Your task to perform on an android device: uninstall "Google Home" Image 0: 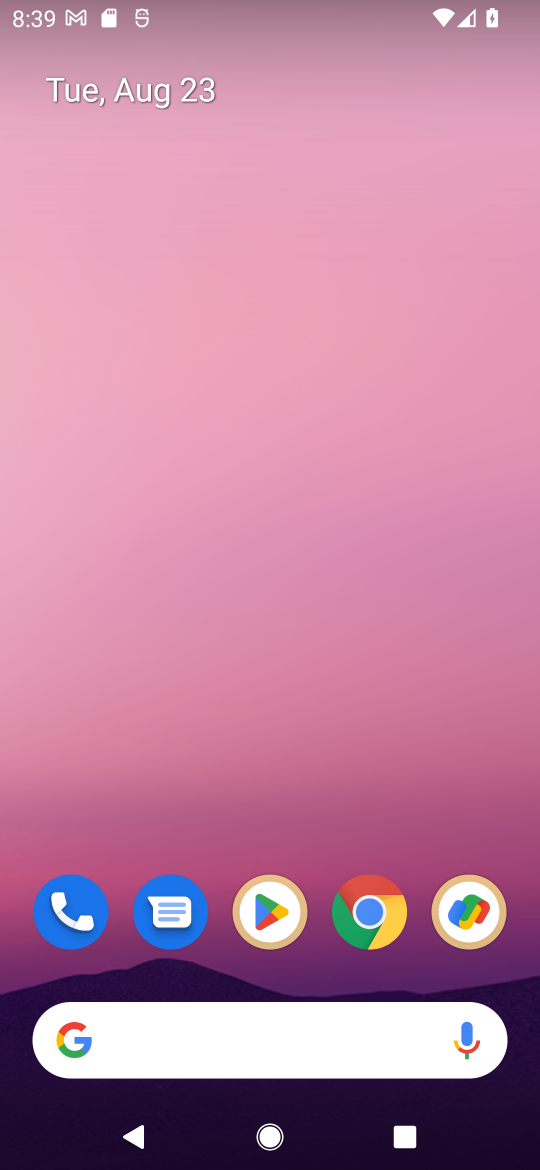
Step 0: drag from (279, 839) to (324, 76)
Your task to perform on an android device: uninstall "Google Home" Image 1: 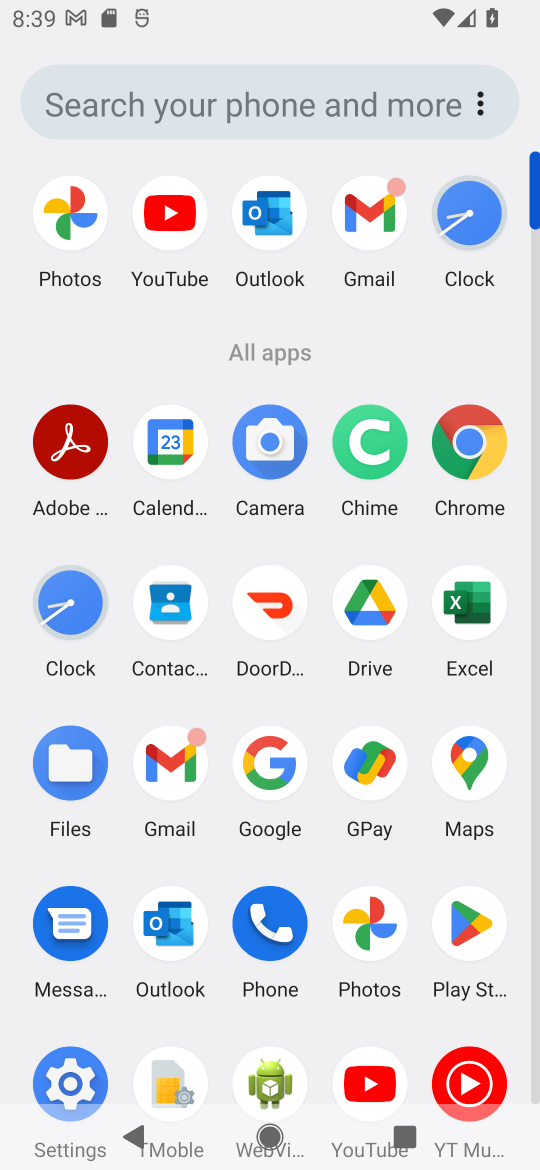
Step 1: click (475, 920)
Your task to perform on an android device: uninstall "Google Home" Image 2: 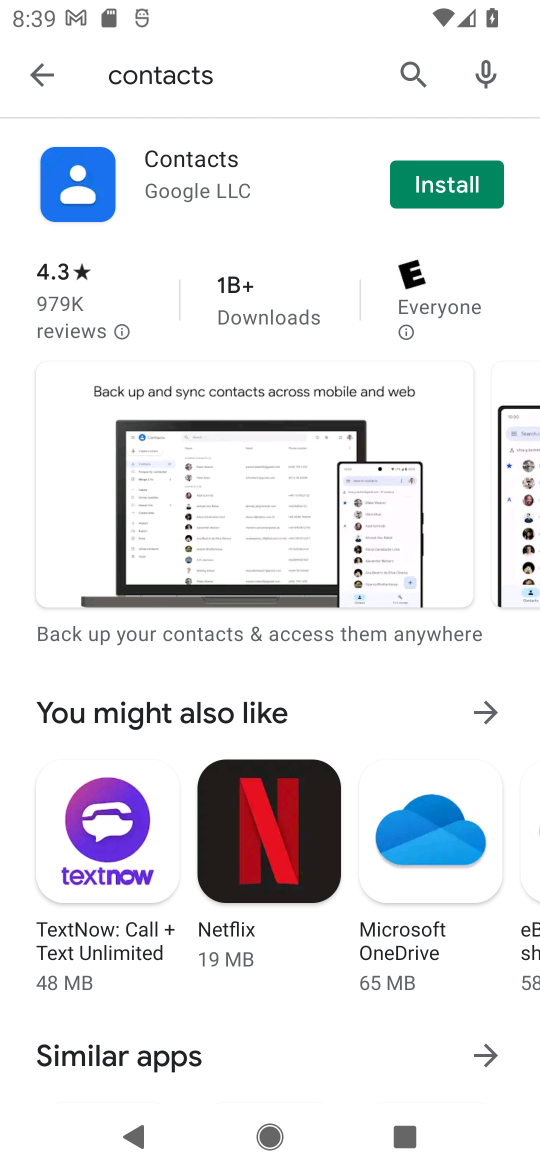
Step 2: press back button
Your task to perform on an android device: uninstall "Google Home" Image 3: 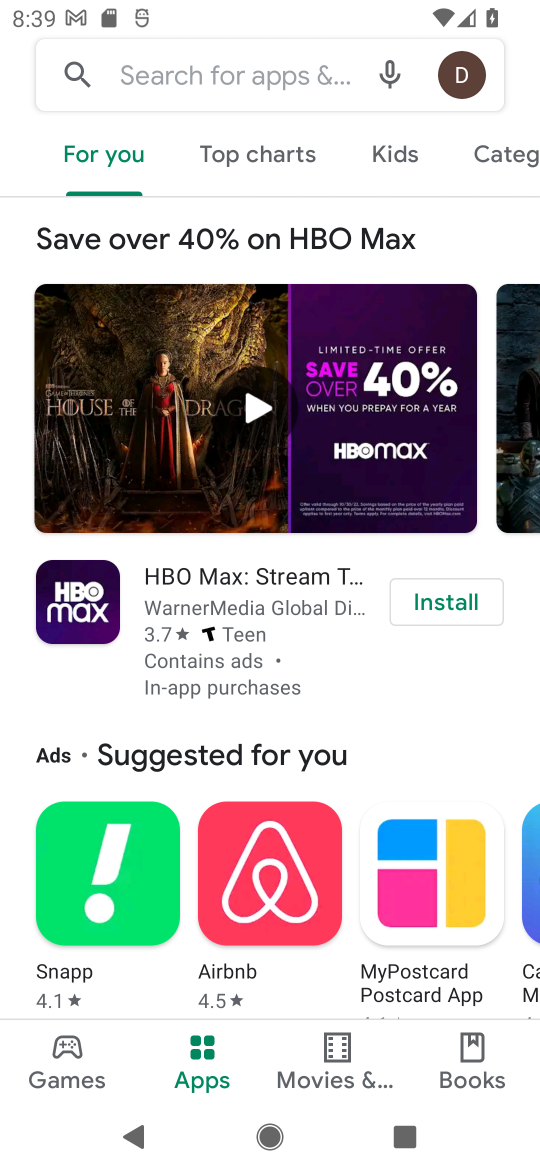
Step 3: click (250, 58)
Your task to perform on an android device: uninstall "Google Home" Image 4: 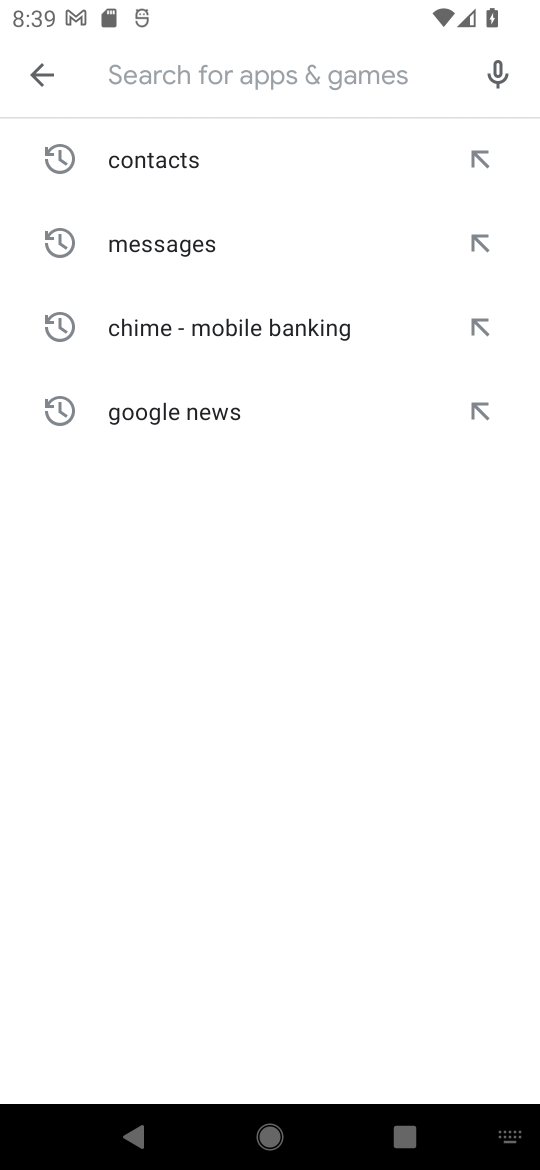
Step 4: type "Google Home"
Your task to perform on an android device: uninstall "Google Home" Image 5: 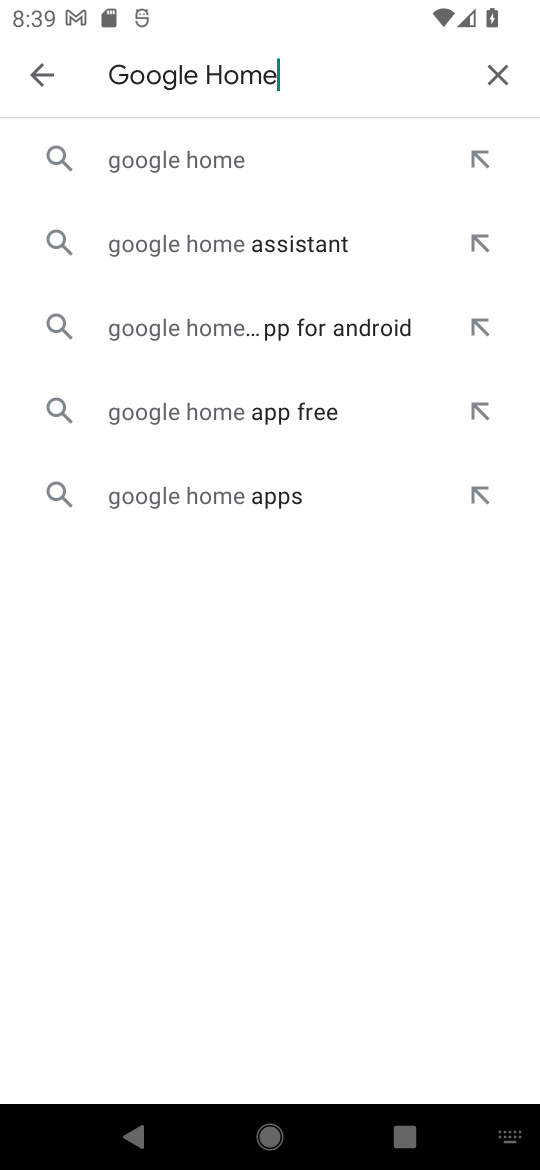
Step 5: click (221, 160)
Your task to perform on an android device: uninstall "Google Home" Image 6: 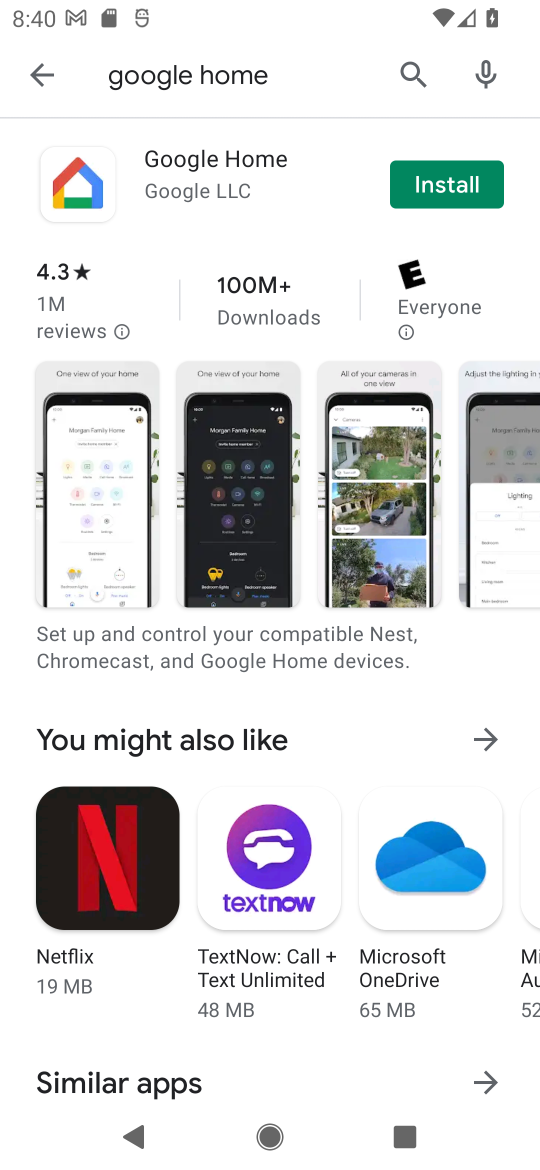
Step 6: task complete